Your task to perform on an android device: turn notification dots off Image 0: 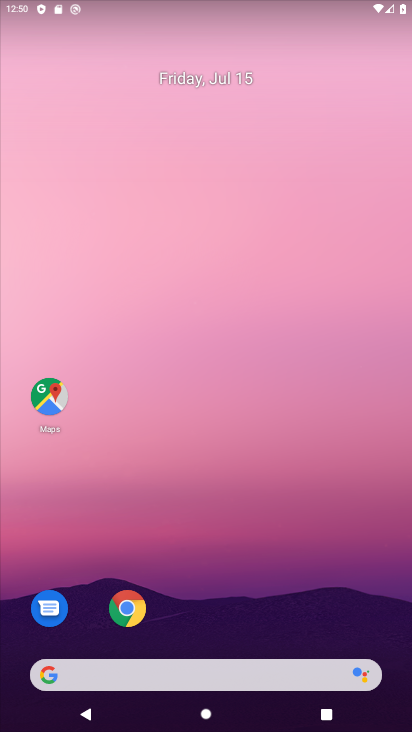
Step 0: click (232, 159)
Your task to perform on an android device: turn notification dots off Image 1: 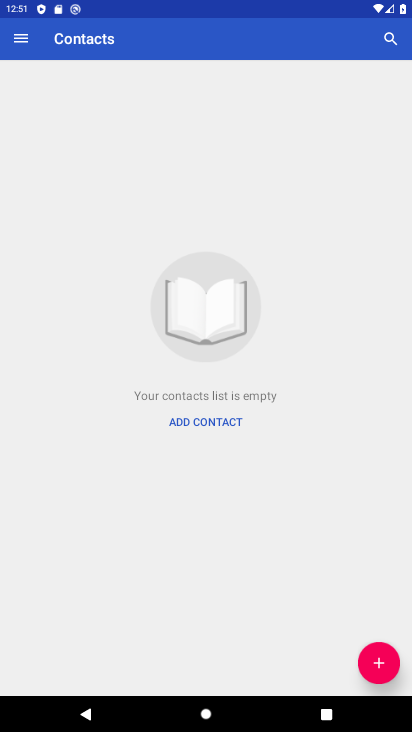
Step 1: press home button
Your task to perform on an android device: turn notification dots off Image 2: 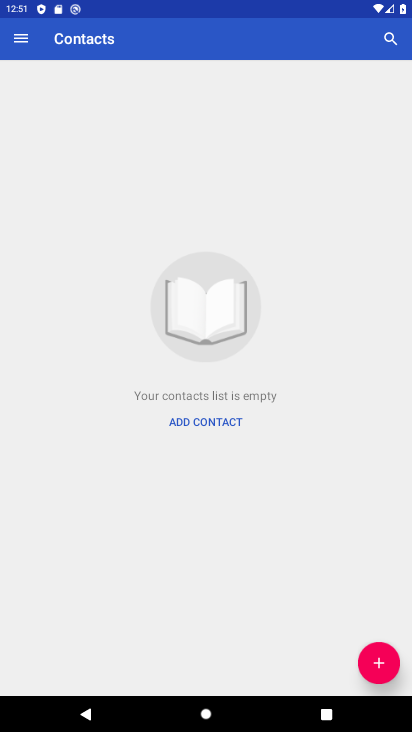
Step 2: click (284, 106)
Your task to perform on an android device: turn notification dots off Image 3: 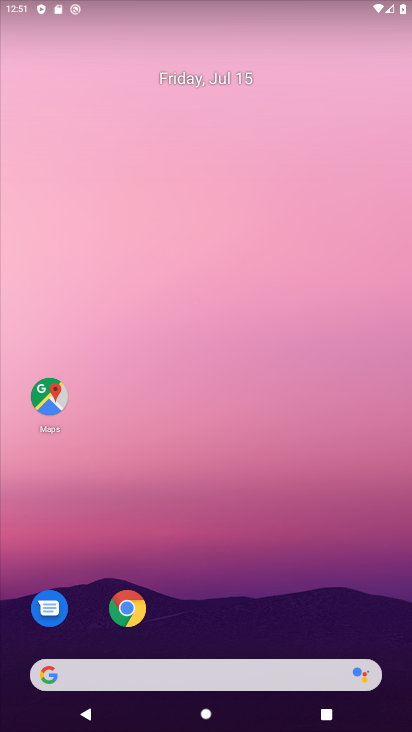
Step 3: drag from (209, 573) to (309, 113)
Your task to perform on an android device: turn notification dots off Image 4: 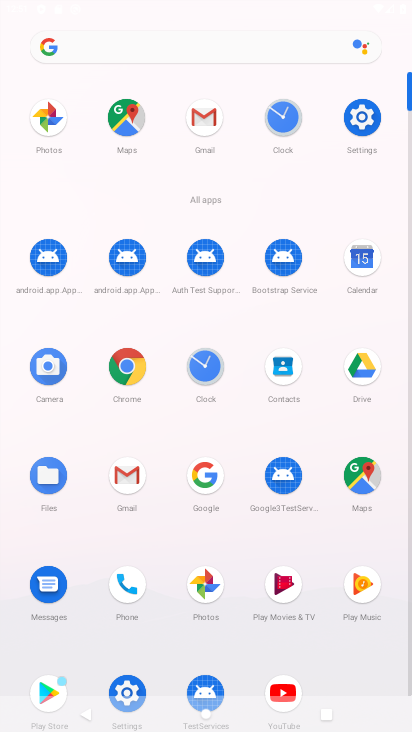
Step 4: click (352, 121)
Your task to perform on an android device: turn notification dots off Image 5: 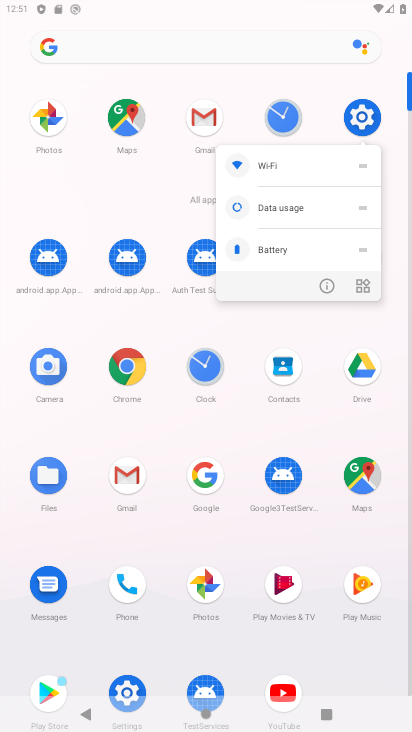
Step 5: click (324, 288)
Your task to perform on an android device: turn notification dots off Image 6: 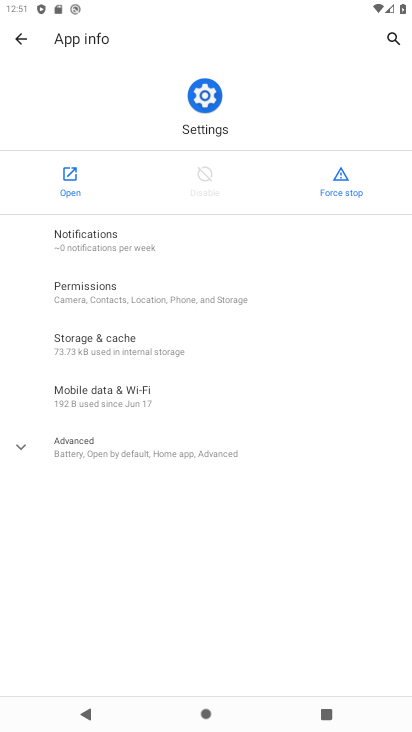
Step 6: click (71, 181)
Your task to perform on an android device: turn notification dots off Image 7: 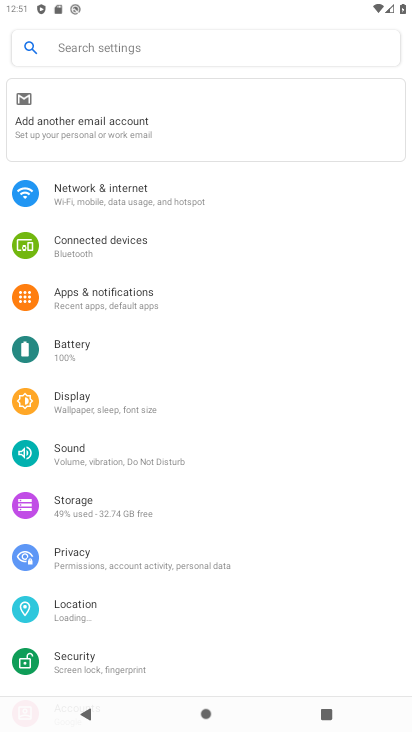
Step 7: click (129, 308)
Your task to perform on an android device: turn notification dots off Image 8: 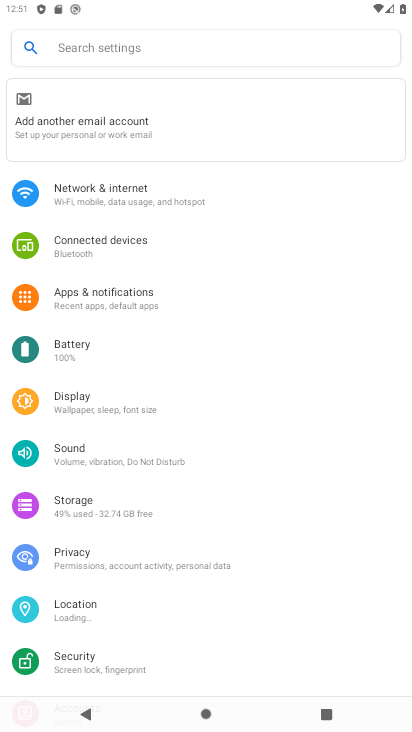
Step 8: click (129, 308)
Your task to perform on an android device: turn notification dots off Image 9: 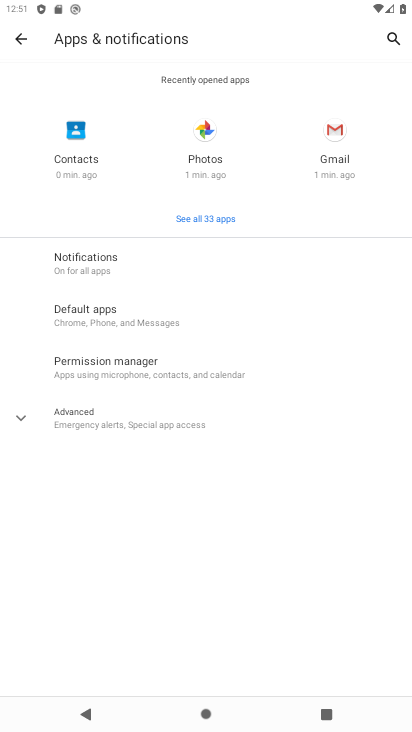
Step 9: click (168, 252)
Your task to perform on an android device: turn notification dots off Image 10: 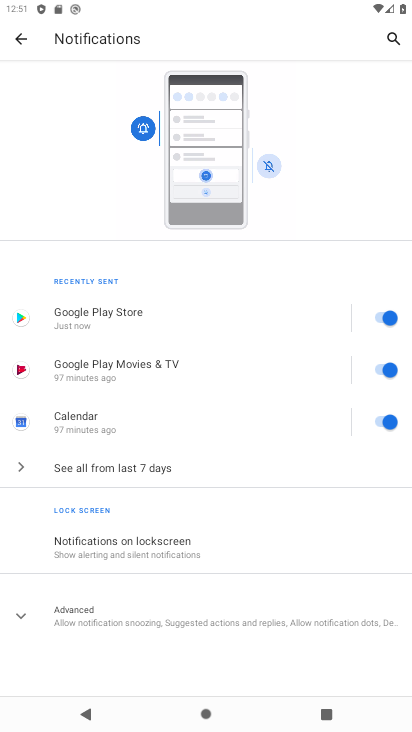
Step 10: click (92, 611)
Your task to perform on an android device: turn notification dots off Image 11: 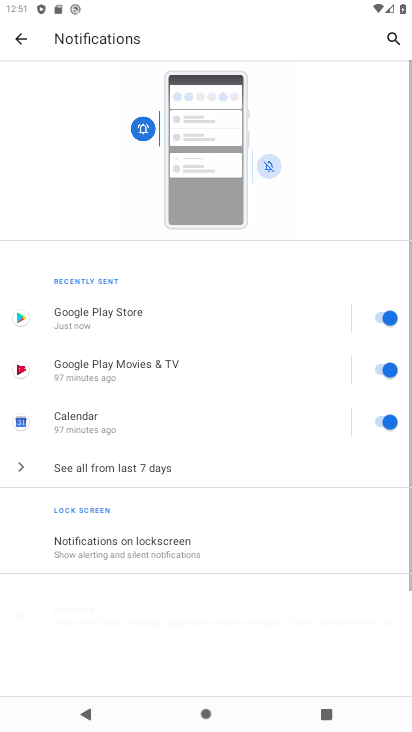
Step 11: drag from (189, 594) to (238, 305)
Your task to perform on an android device: turn notification dots off Image 12: 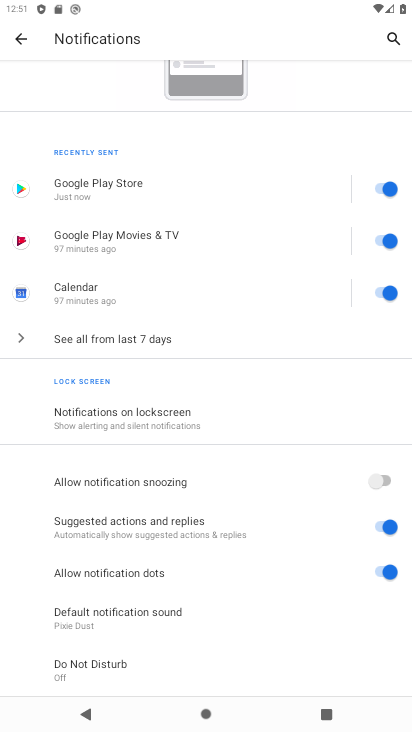
Step 12: click (382, 578)
Your task to perform on an android device: turn notification dots off Image 13: 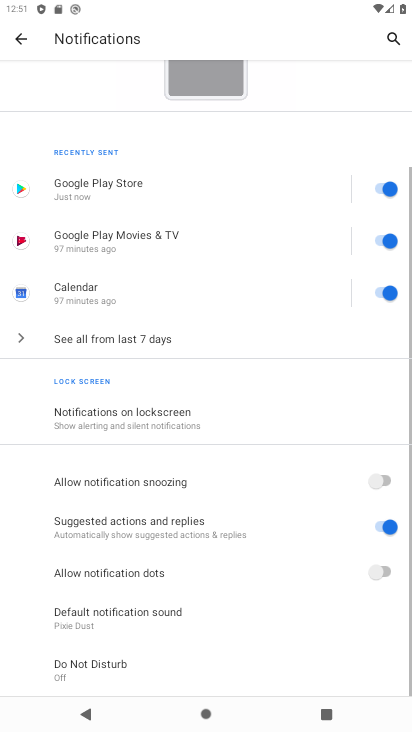
Step 13: task complete